Your task to perform on an android device: Show me recent news Image 0: 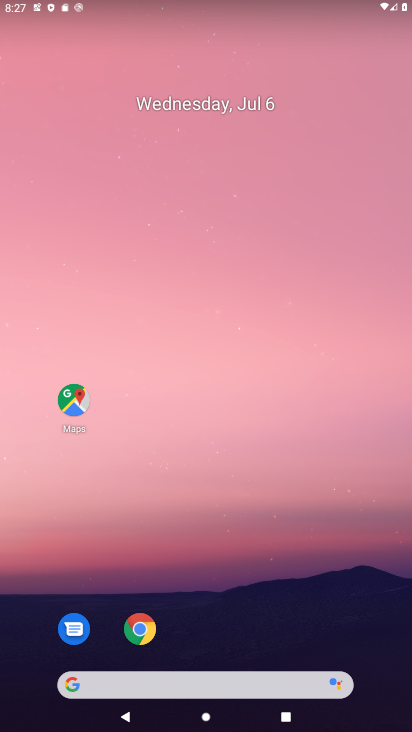
Step 0: drag from (245, 647) to (219, 2)
Your task to perform on an android device: Show me recent news Image 1: 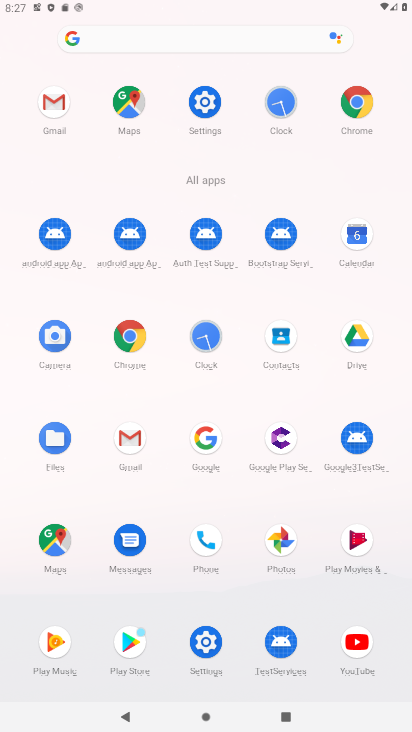
Step 1: click (208, 431)
Your task to perform on an android device: Show me recent news Image 2: 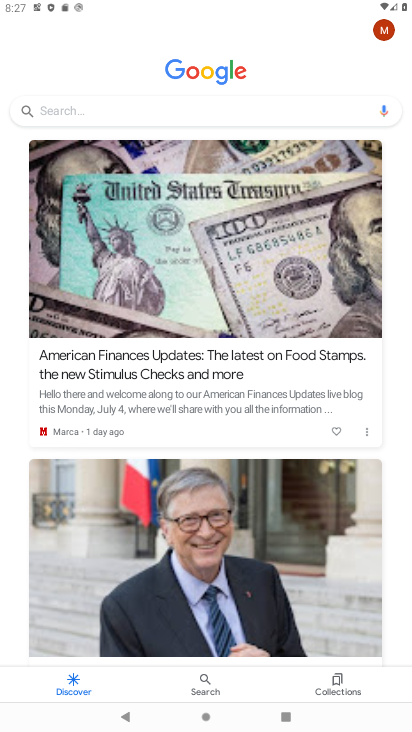
Step 2: drag from (213, 621) to (213, 533)
Your task to perform on an android device: Show me recent news Image 3: 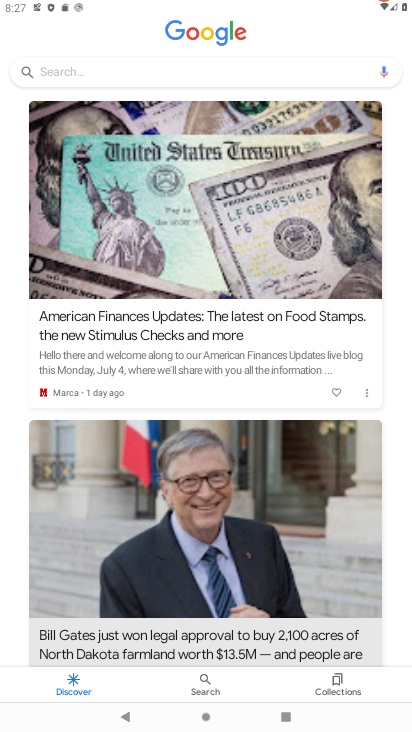
Step 3: click (213, 248)
Your task to perform on an android device: Show me recent news Image 4: 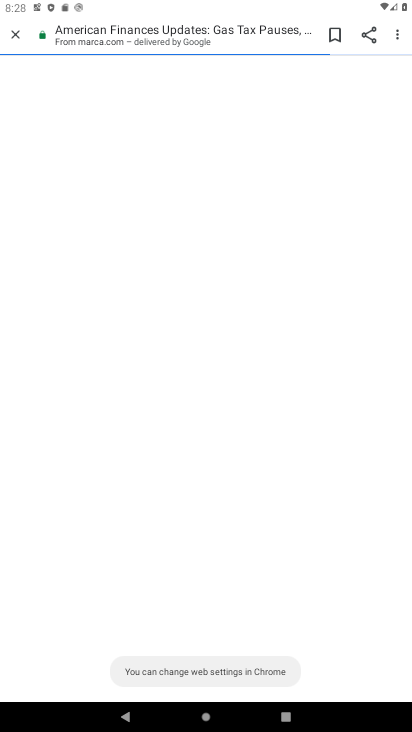
Step 4: task complete